Your task to perform on an android device: find snoozed emails in the gmail app Image 0: 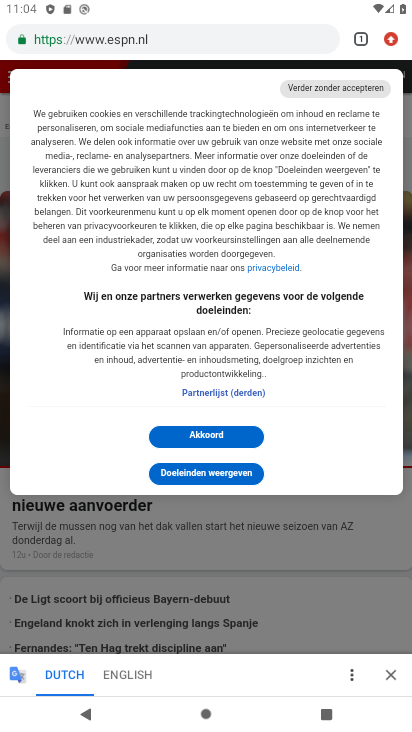
Step 0: drag from (351, 607) to (376, 378)
Your task to perform on an android device: find snoozed emails in the gmail app Image 1: 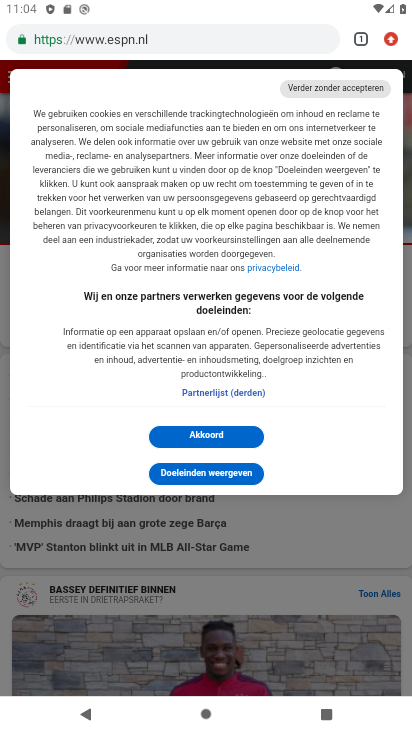
Step 1: press home button
Your task to perform on an android device: find snoozed emails in the gmail app Image 2: 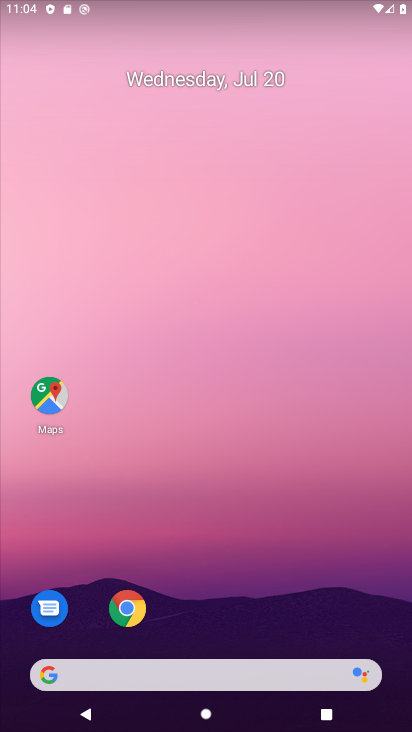
Step 2: drag from (300, 599) to (335, 63)
Your task to perform on an android device: find snoozed emails in the gmail app Image 3: 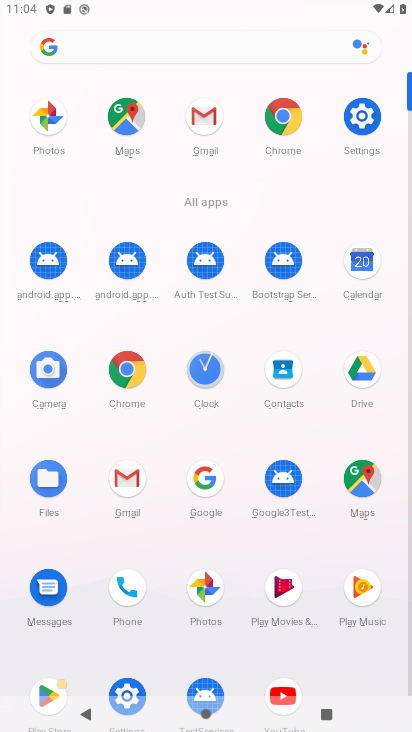
Step 3: click (130, 483)
Your task to perform on an android device: find snoozed emails in the gmail app Image 4: 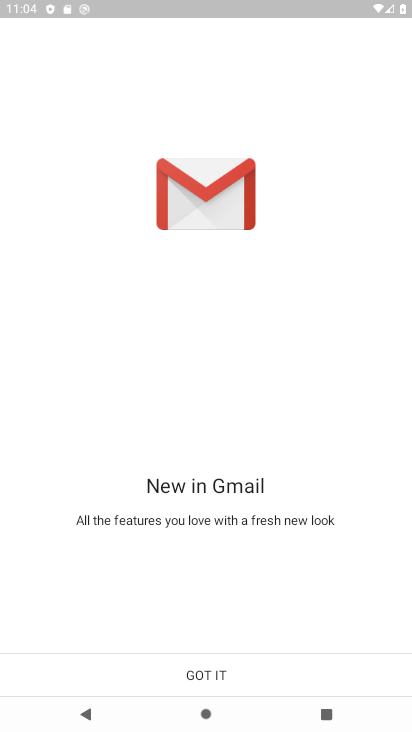
Step 4: click (301, 673)
Your task to perform on an android device: find snoozed emails in the gmail app Image 5: 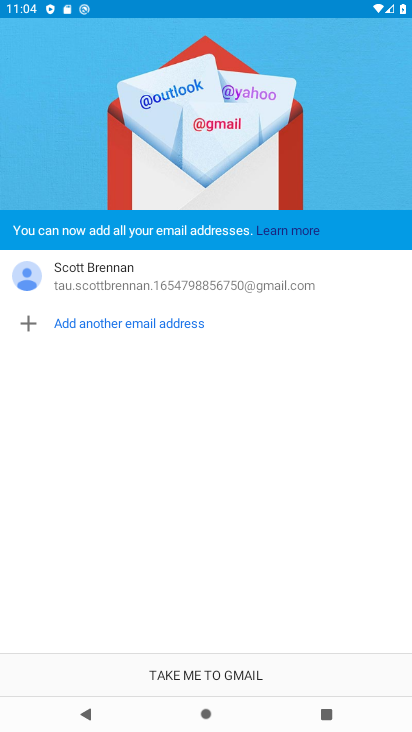
Step 5: click (273, 671)
Your task to perform on an android device: find snoozed emails in the gmail app Image 6: 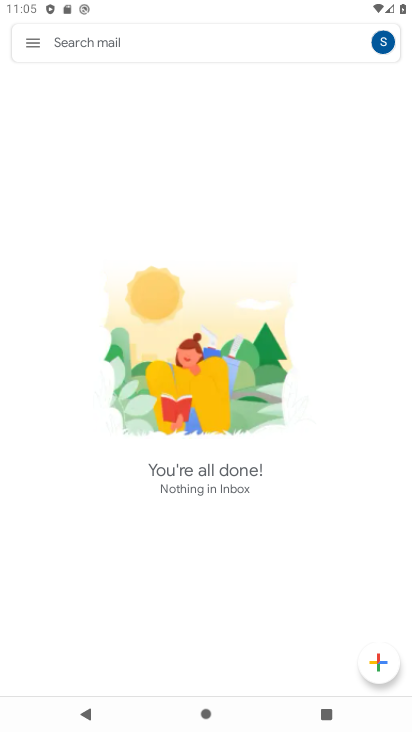
Step 6: click (35, 42)
Your task to perform on an android device: find snoozed emails in the gmail app Image 7: 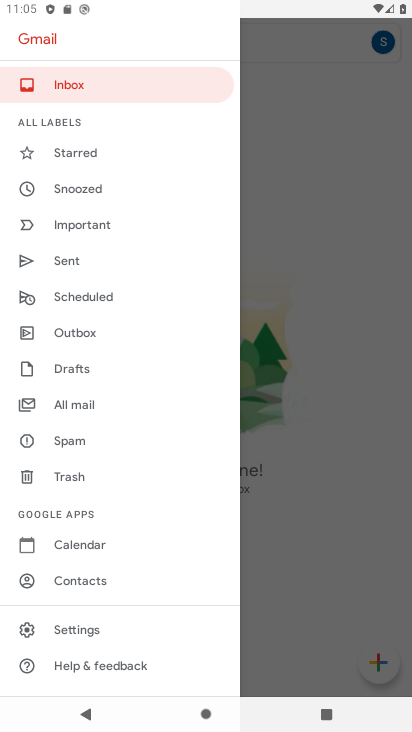
Step 7: drag from (162, 317) to (157, 192)
Your task to perform on an android device: find snoozed emails in the gmail app Image 8: 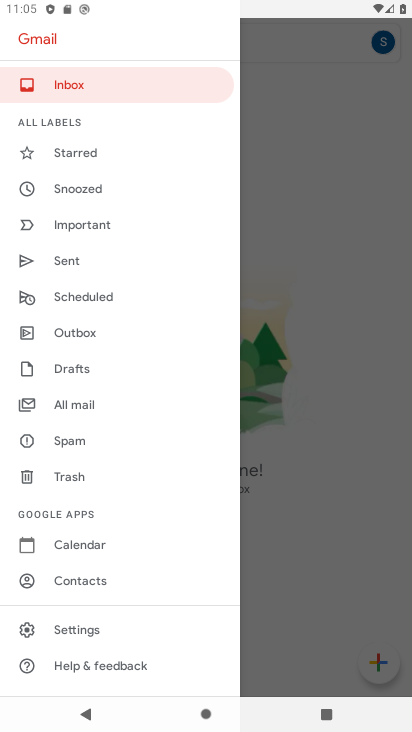
Step 8: click (93, 189)
Your task to perform on an android device: find snoozed emails in the gmail app Image 9: 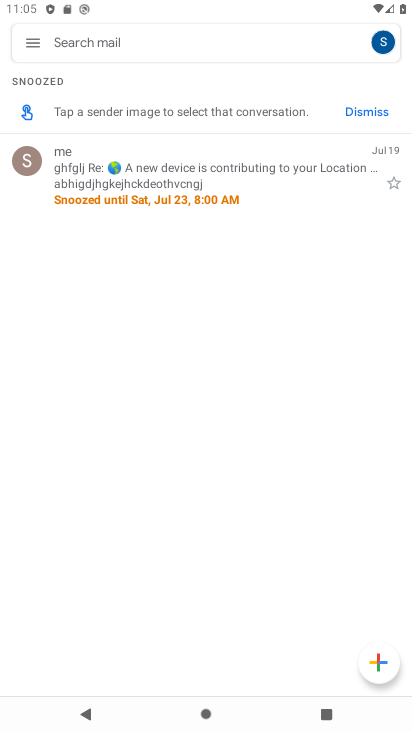
Step 9: task complete